Your task to perform on an android device: What is the capital of Sweden? Image 0: 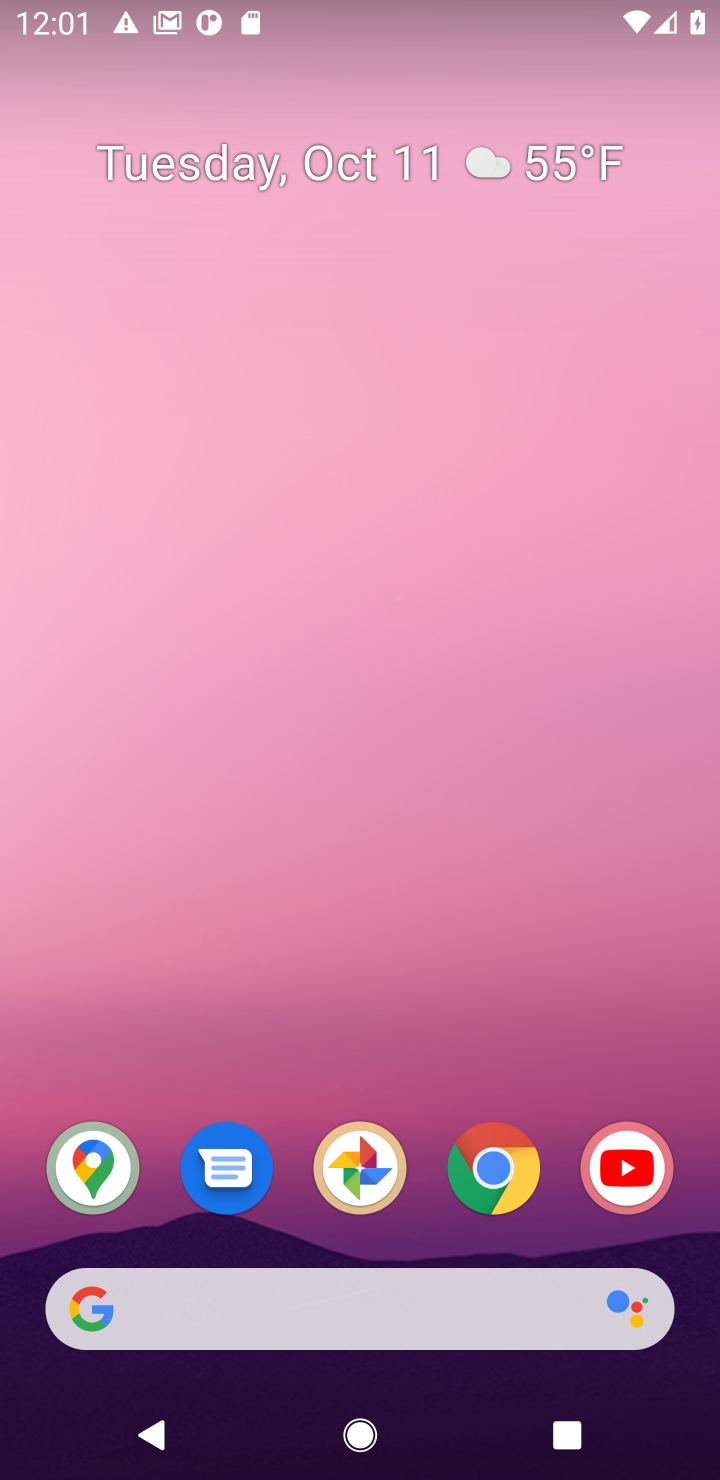
Step 0: drag from (385, 1263) to (477, 299)
Your task to perform on an android device: What is the capital of Sweden? Image 1: 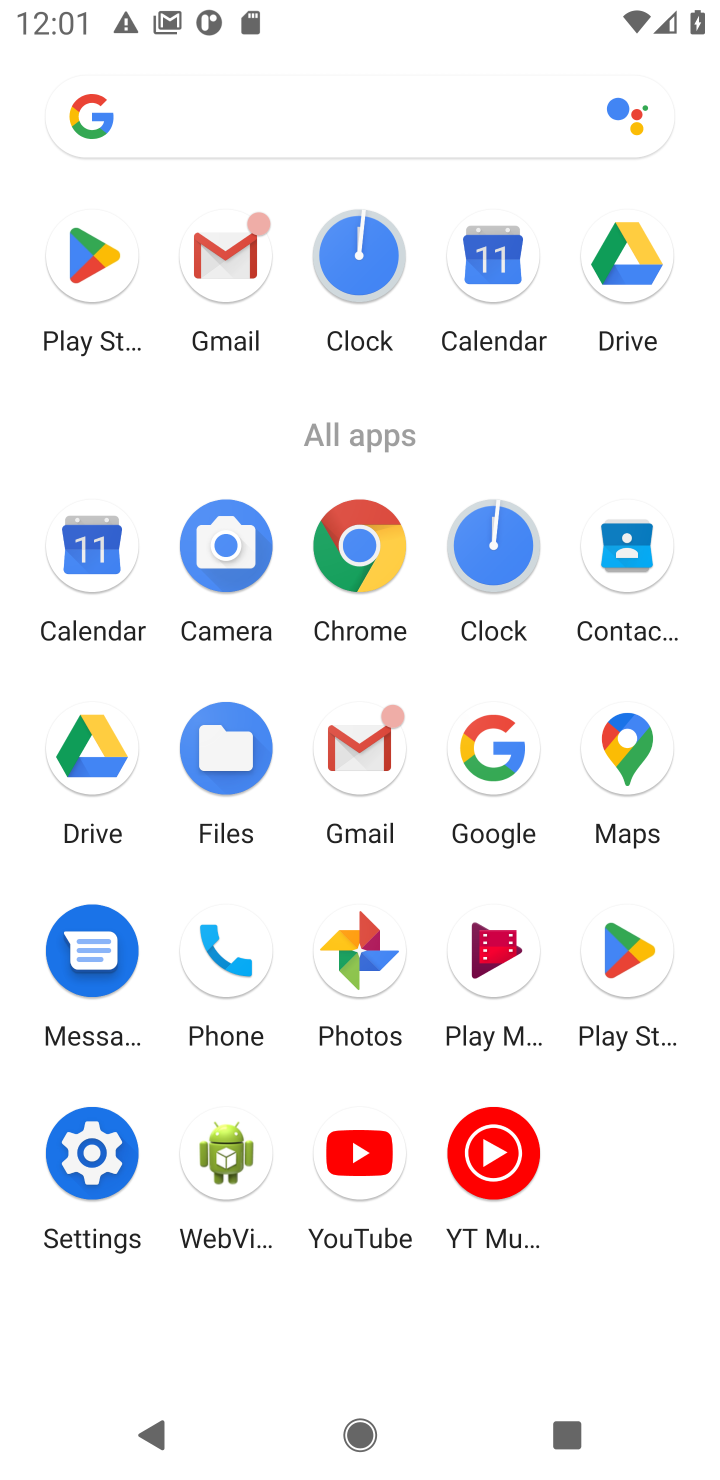
Step 1: click (506, 812)
Your task to perform on an android device: What is the capital of Sweden? Image 2: 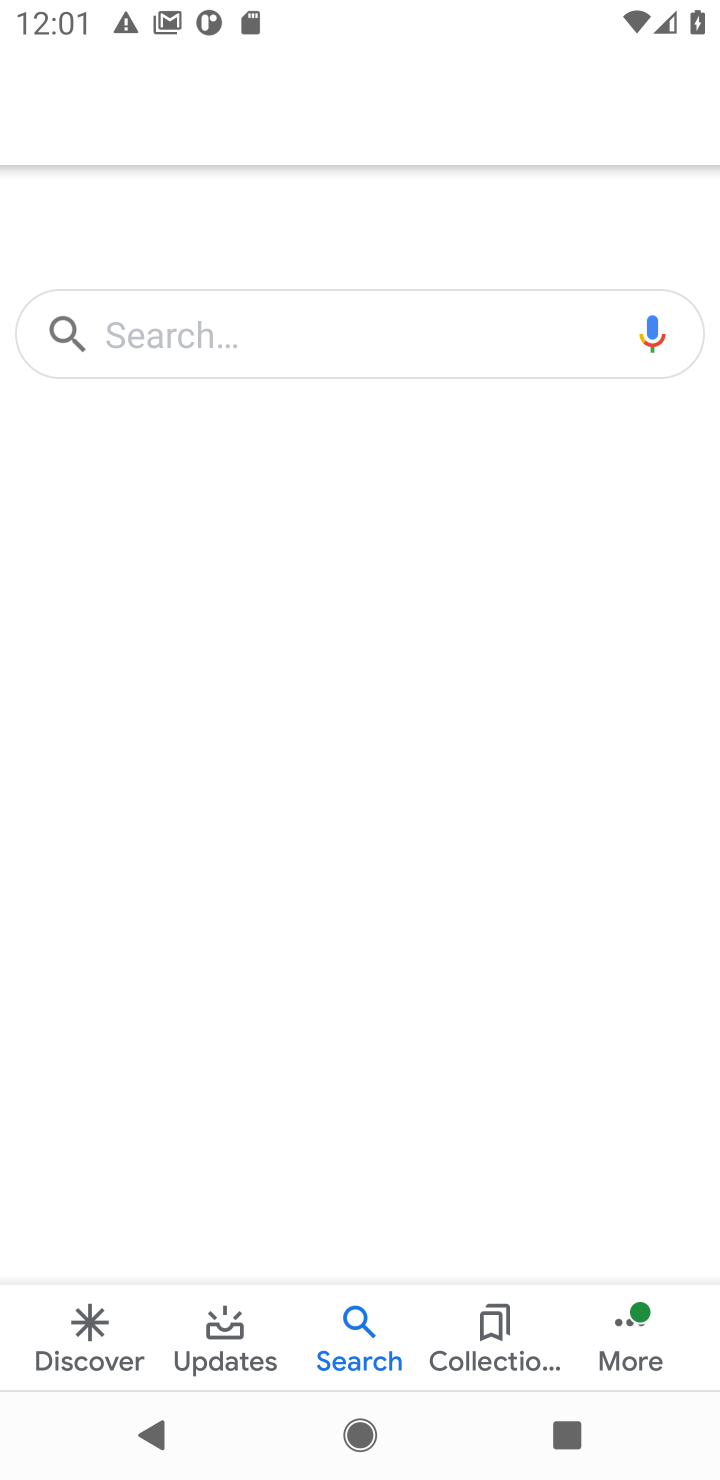
Step 2: click (336, 335)
Your task to perform on an android device: What is the capital of Sweden? Image 3: 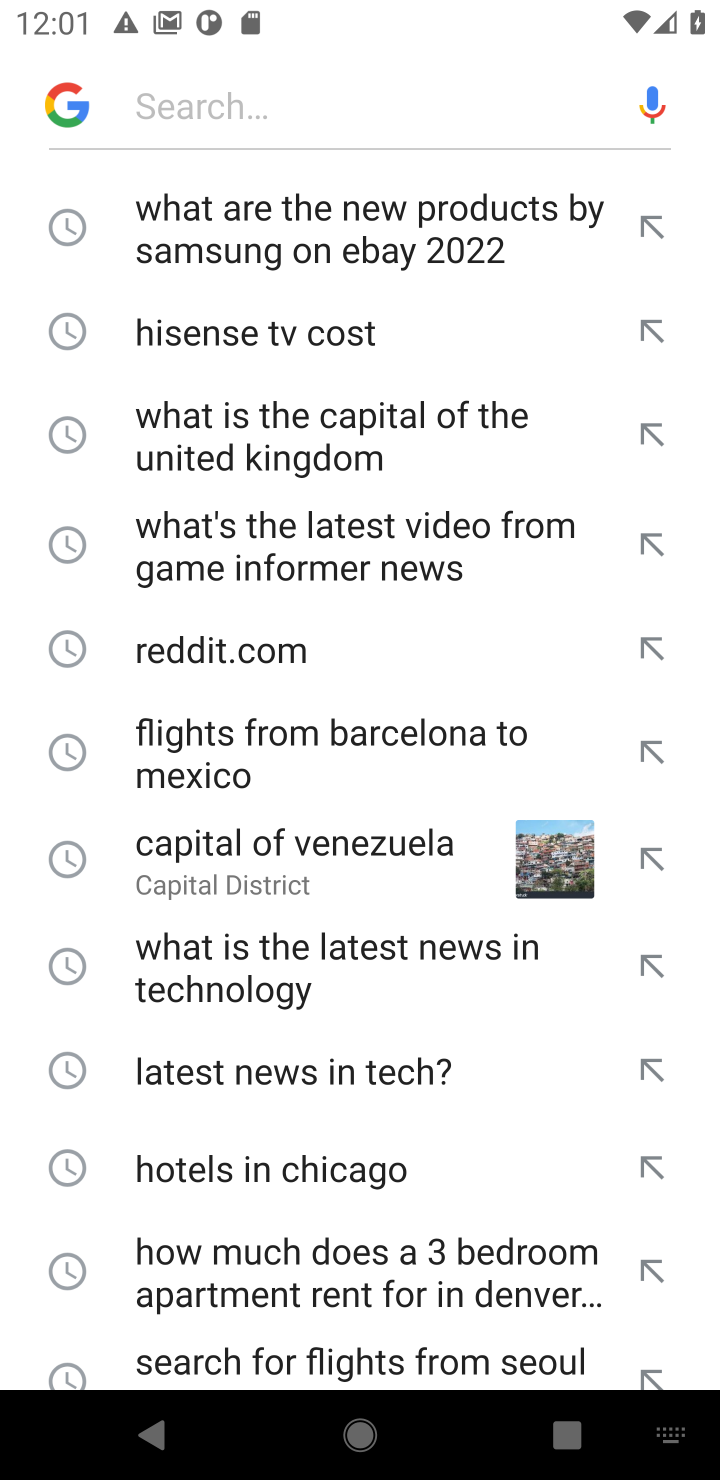
Step 3: type "capital of Sweden"
Your task to perform on an android device: What is the capital of Sweden? Image 4: 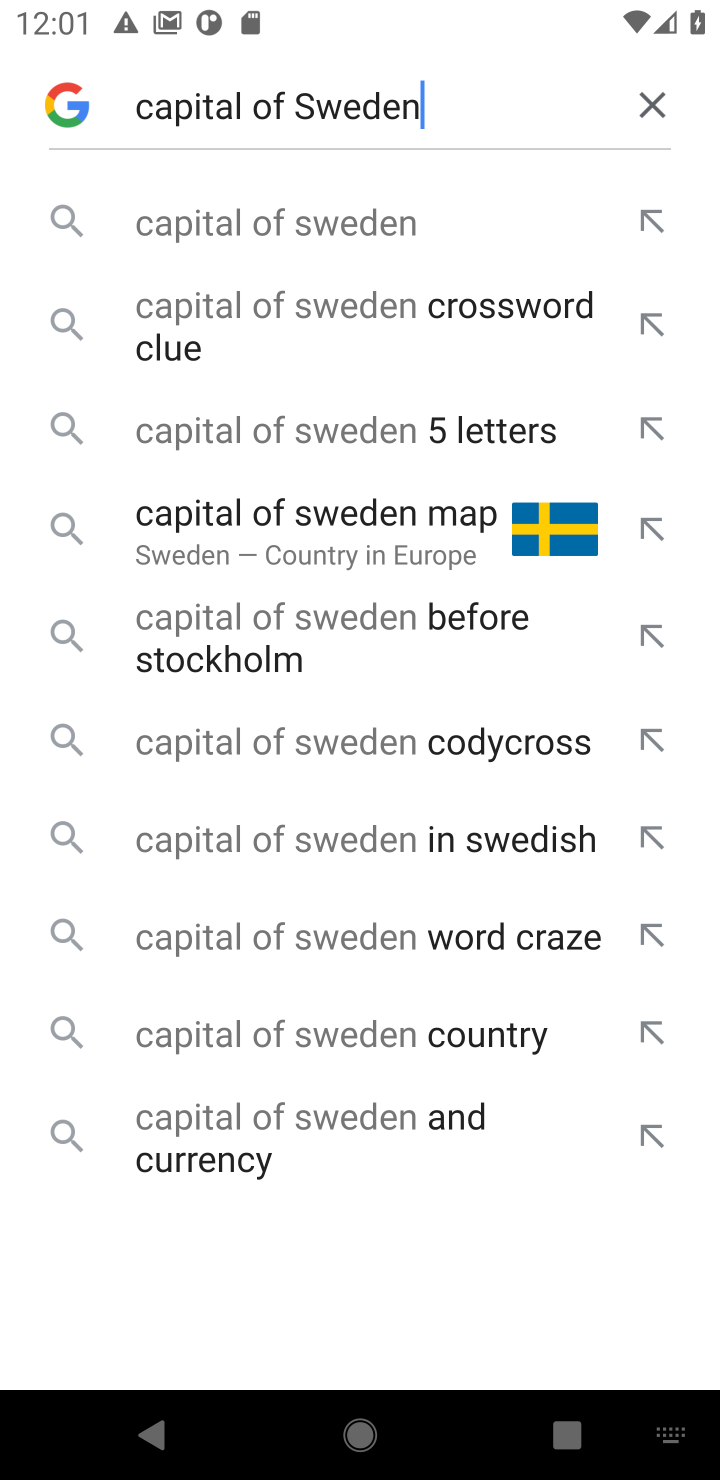
Step 4: click (371, 248)
Your task to perform on an android device: What is the capital of Sweden? Image 5: 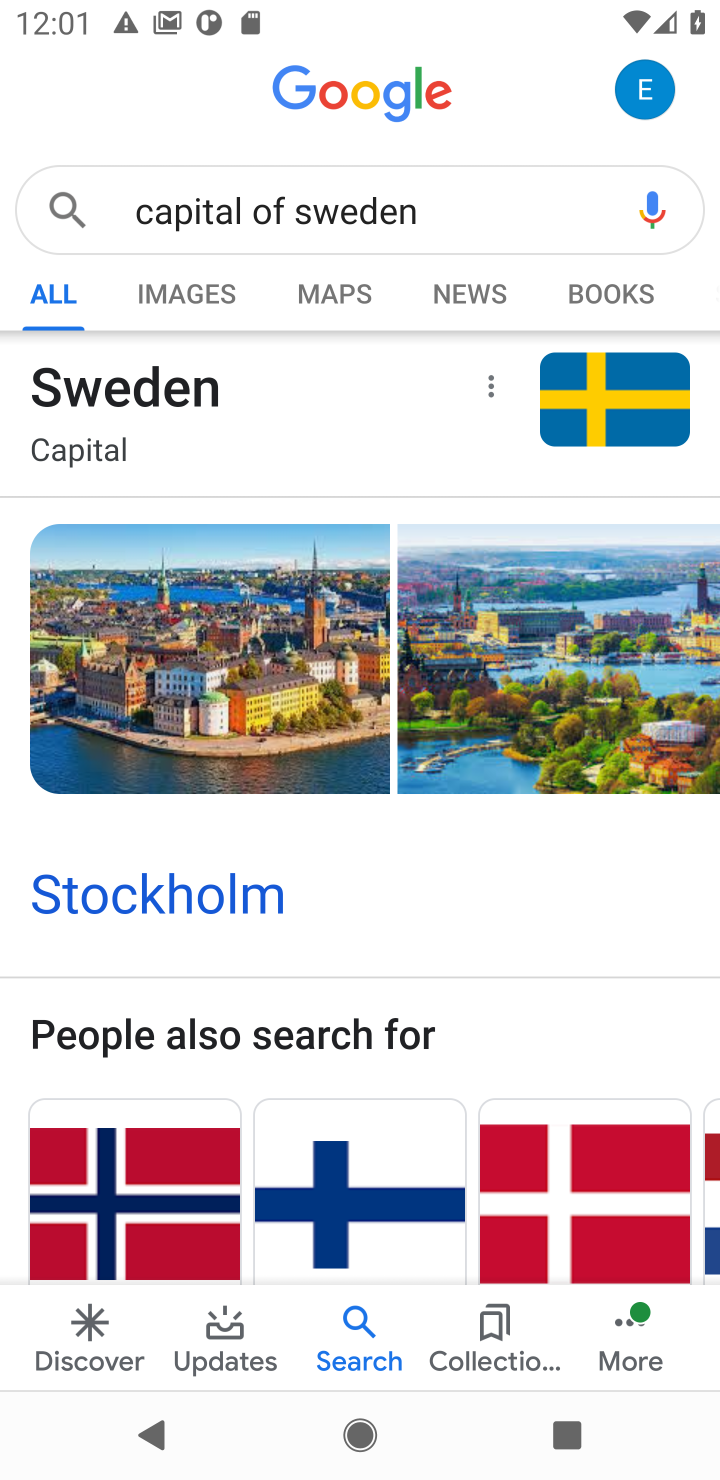
Step 5: task complete